Your task to perform on an android device: make emails show in primary in the gmail app Image 0: 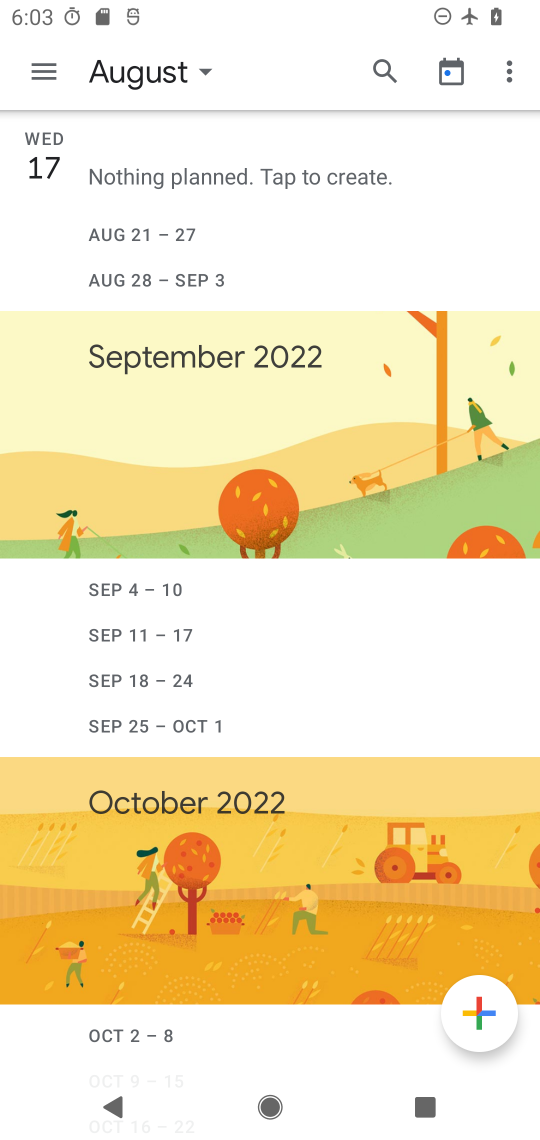
Step 0: press home button
Your task to perform on an android device: make emails show in primary in the gmail app Image 1: 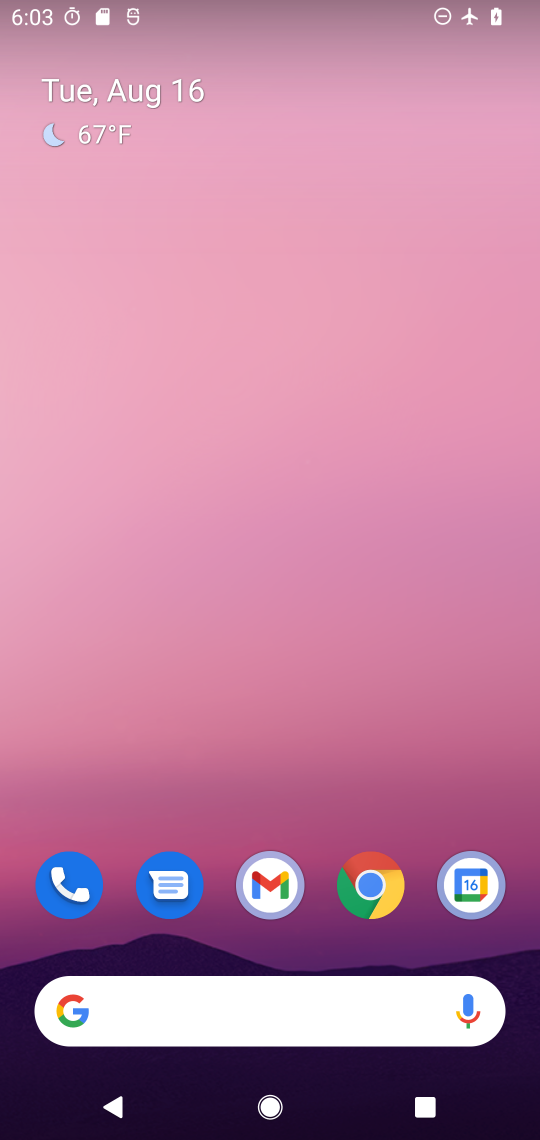
Step 1: drag from (154, 978) to (237, 301)
Your task to perform on an android device: make emails show in primary in the gmail app Image 2: 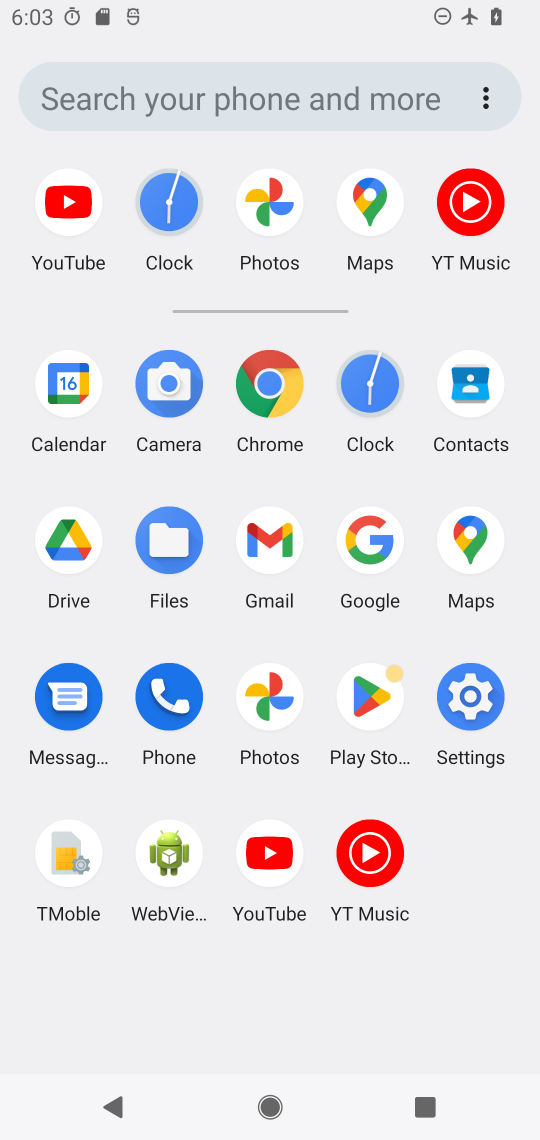
Step 2: click (262, 549)
Your task to perform on an android device: make emails show in primary in the gmail app Image 3: 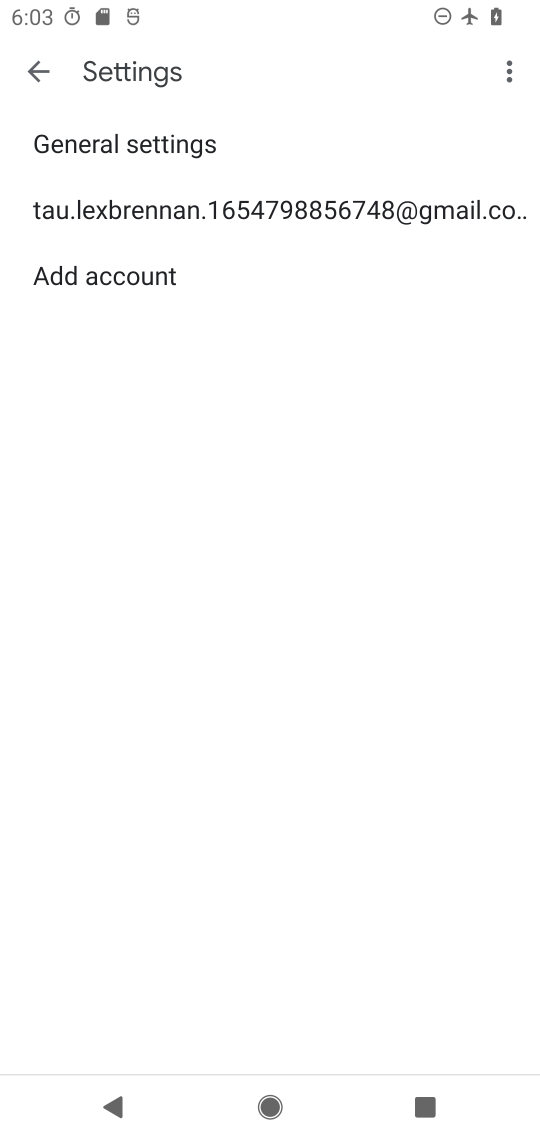
Step 3: click (203, 208)
Your task to perform on an android device: make emails show in primary in the gmail app Image 4: 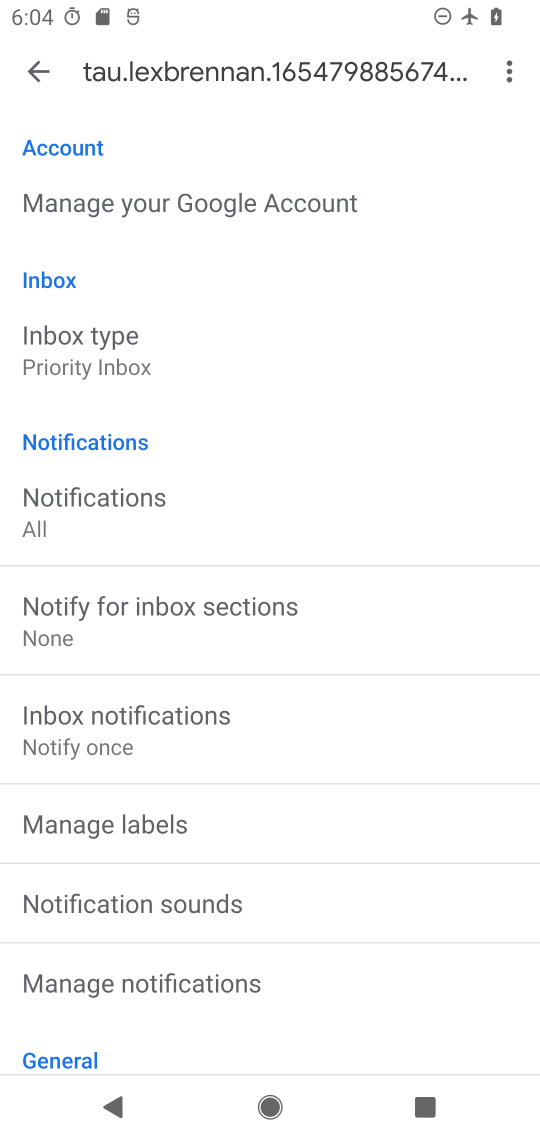
Step 4: task complete